Your task to perform on an android device: see sites visited before in the chrome app Image 0: 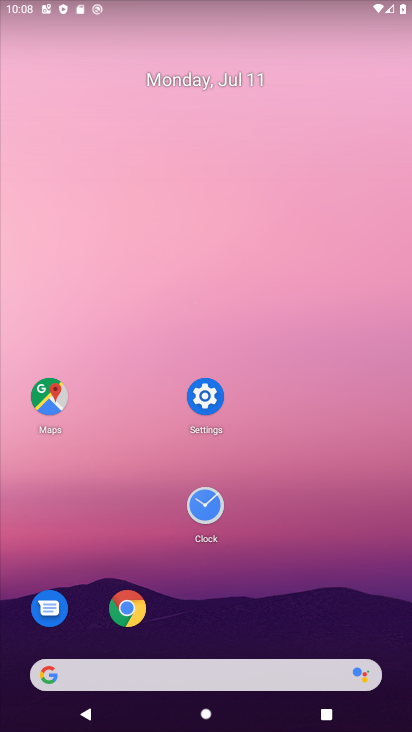
Step 0: click (131, 608)
Your task to perform on an android device: see sites visited before in the chrome app Image 1: 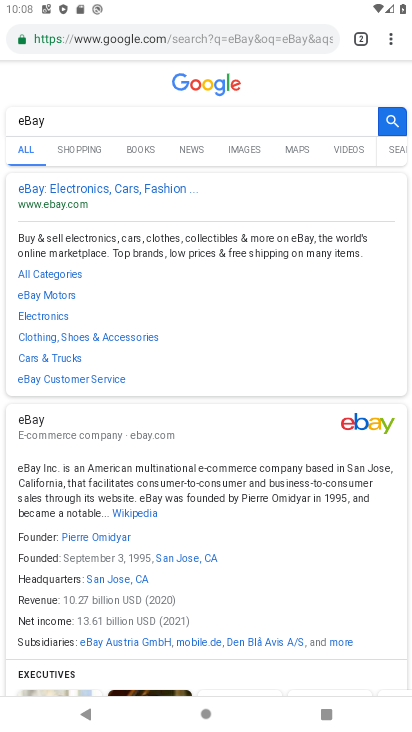
Step 1: click (389, 41)
Your task to perform on an android device: see sites visited before in the chrome app Image 2: 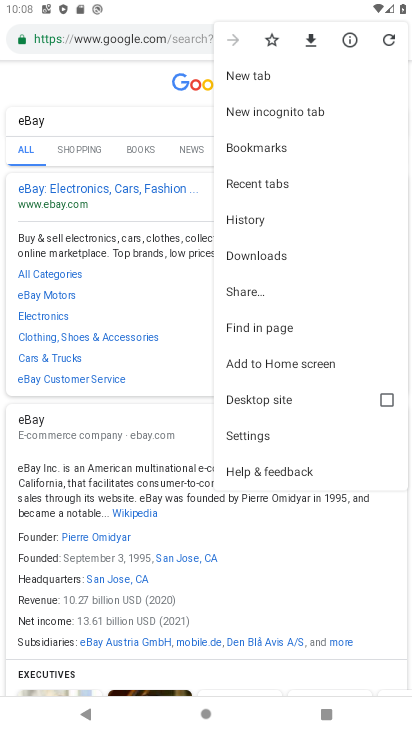
Step 2: click (265, 181)
Your task to perform on an android device: see sites visited before in the chrome app Image 3: 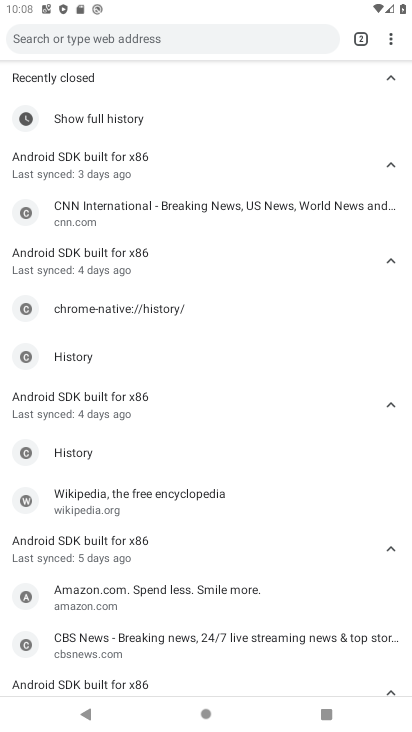
Step 3: task complete